Your task to perform on an android device: Go to display settings Image 0: 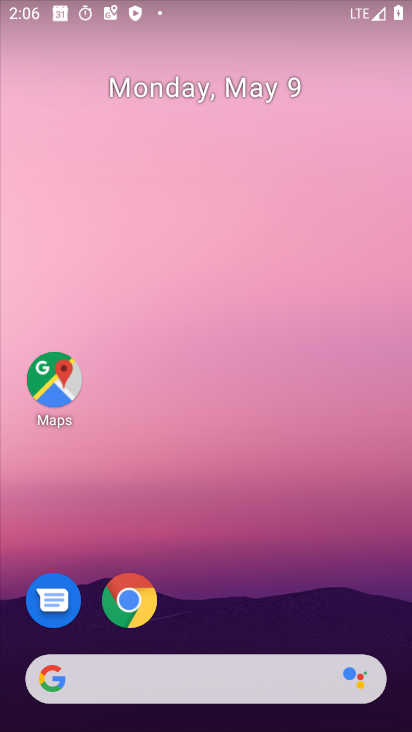
Step 0: drag from (230, 608) to (168, 297)
Your task to perform on an android device: Go to display settings Image 1: 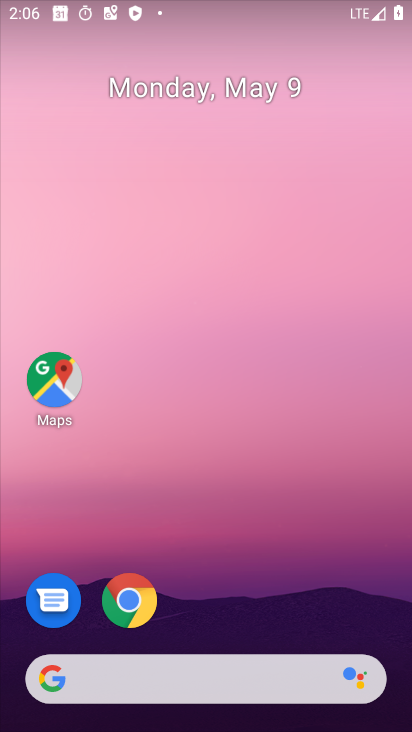
Step 1: drag from (291, 637) to (284, 51)
Your task to perform on an android device: Go to display settings Image 2: 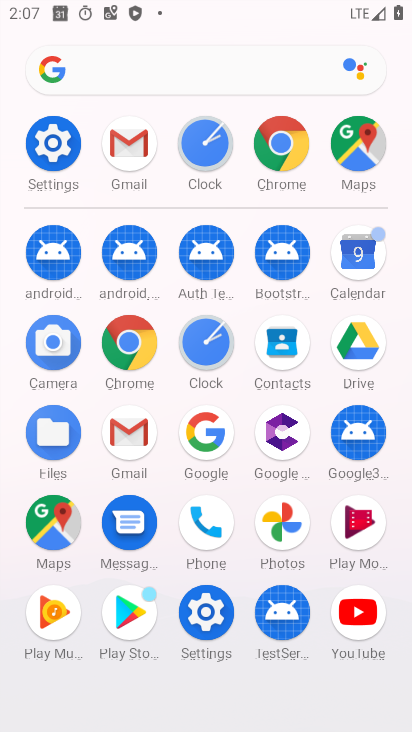
Step 2: click (204, 608)
Your task to perform on an android device: Go to display settings Image 3: 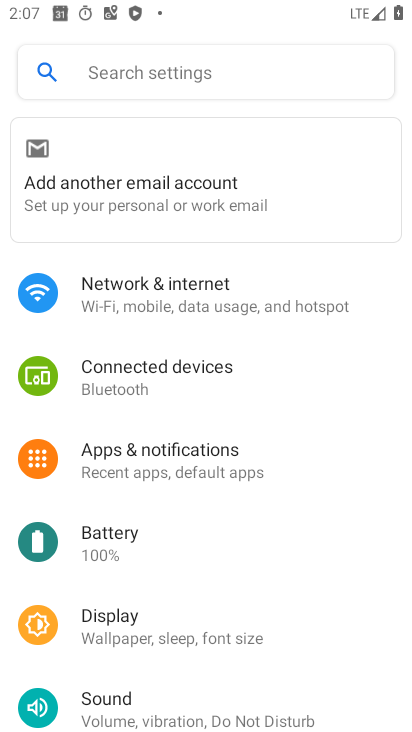
Step 3: click (204, 630)
Your task to perform on an android device: Go to display settings Image 4: 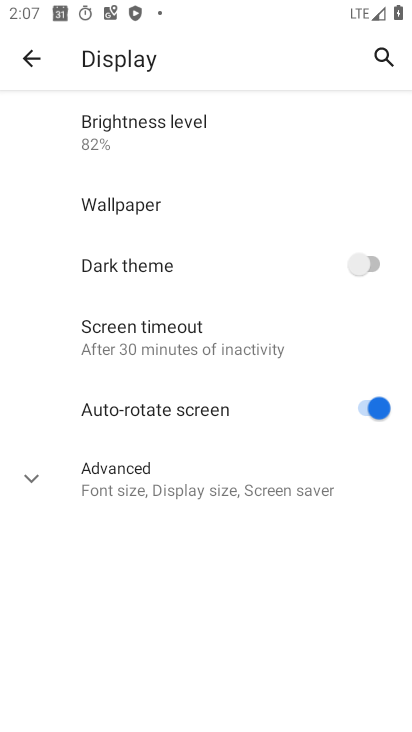
Step 4: task complete